Your task to perform on an android device: Go to CNN.com Image 0: 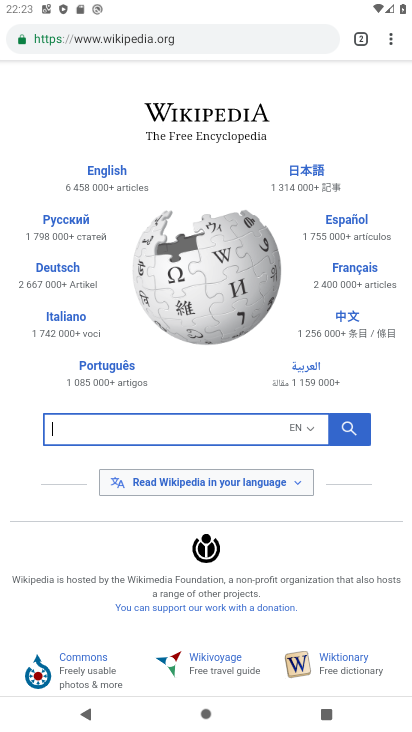
Step 0: click (269, 31)
Your task to perform on an android device: Go to CNN.com Image 1: 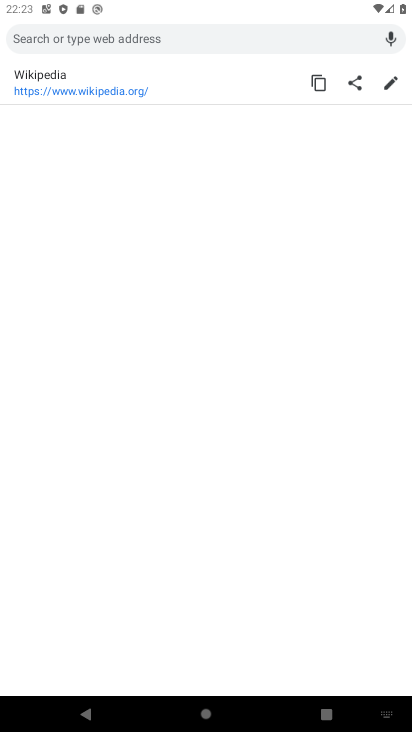
Step 1: type "CNN.com"
Your task to perform on an android device: Go to CNN.com Image 2: 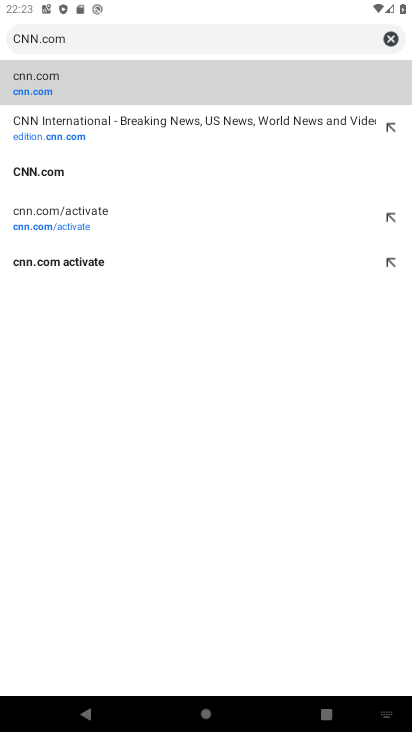
Step 2: click (212, 75)
Your task to perform on an android device: Go to CNN.com Image 3: 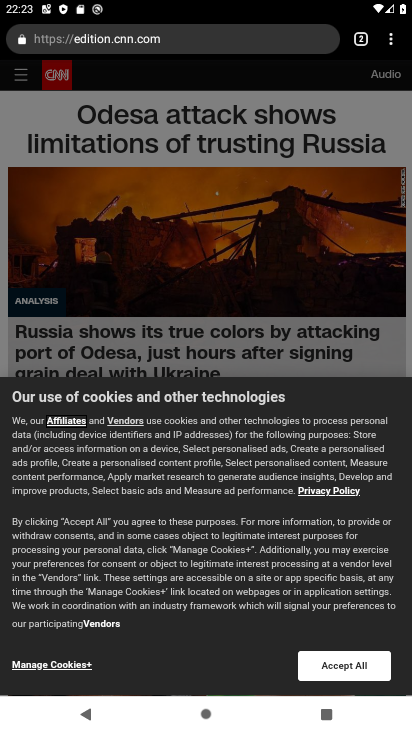
Step 3: task complete